Your task to perform on an android device: What's the weather going to be this weekend? Image 0: 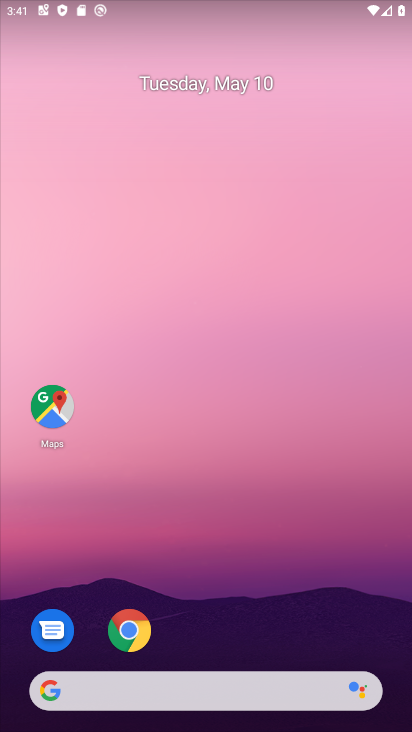
Step 0: click (224, 699)
Your task to perform on an android device: What's the weather going to be this weekend? Image 1: 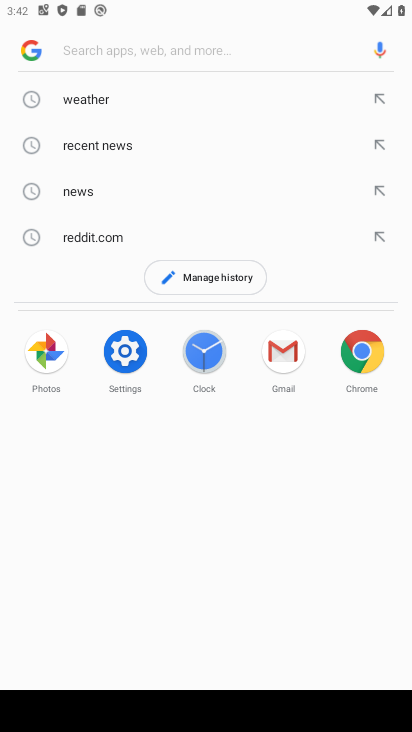
Step 1: click (140, 109)
Your task to perform on an android device: What's the weather going to be this weekend? Image 2: 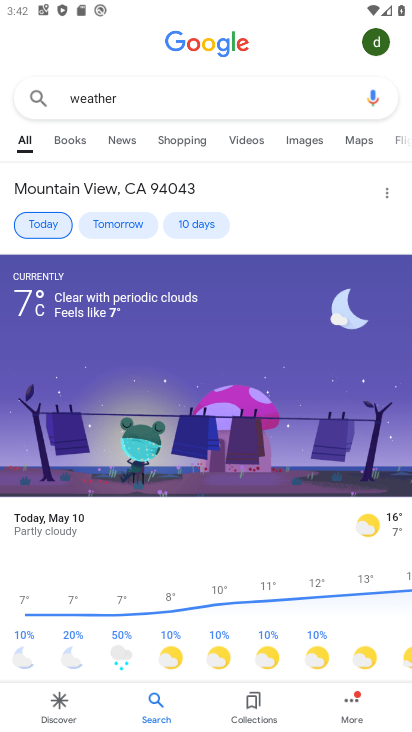
Step 2: task complete